Your task to perform on an android device: open app "PUBG MOBILE" (install if not already installed) Image 0: 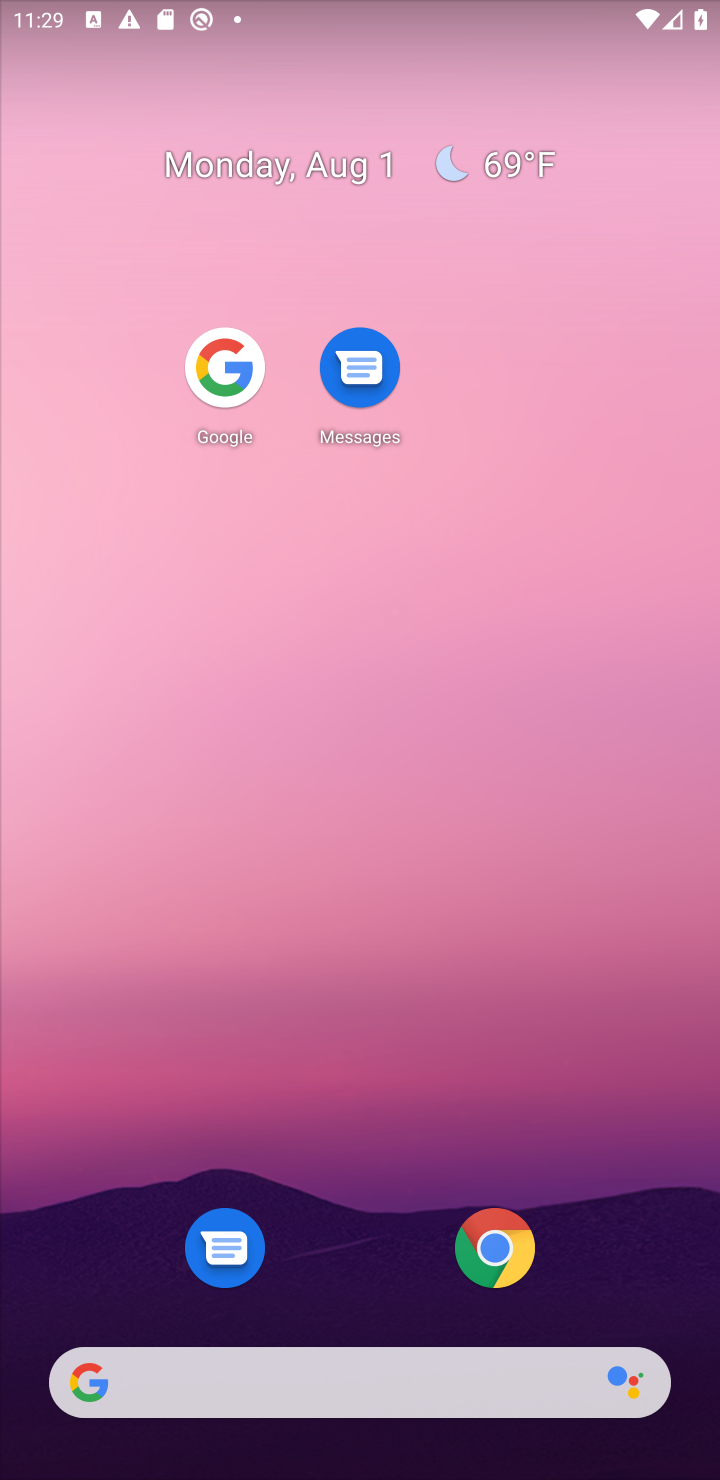
Step 0: drag from (372, 1180) to (482, 157)
Your task to perform on an android device: open app "PUBG MOBILE" (install if not already installed) Image 1: 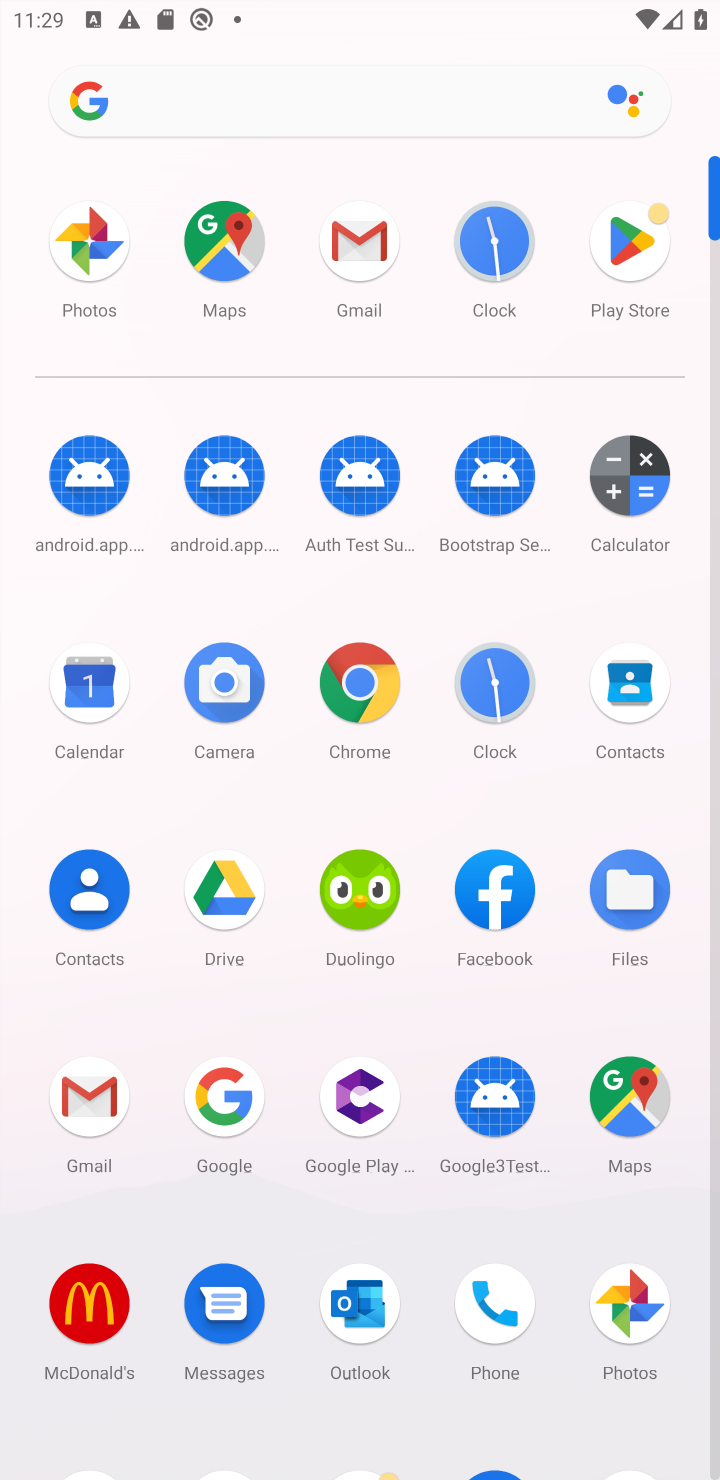
Step 1: drag from (274, 1188) to (351, 401)
Your task to perform on an android device: open app "PUBG MOBILE" (install if not already installed) Image 2: 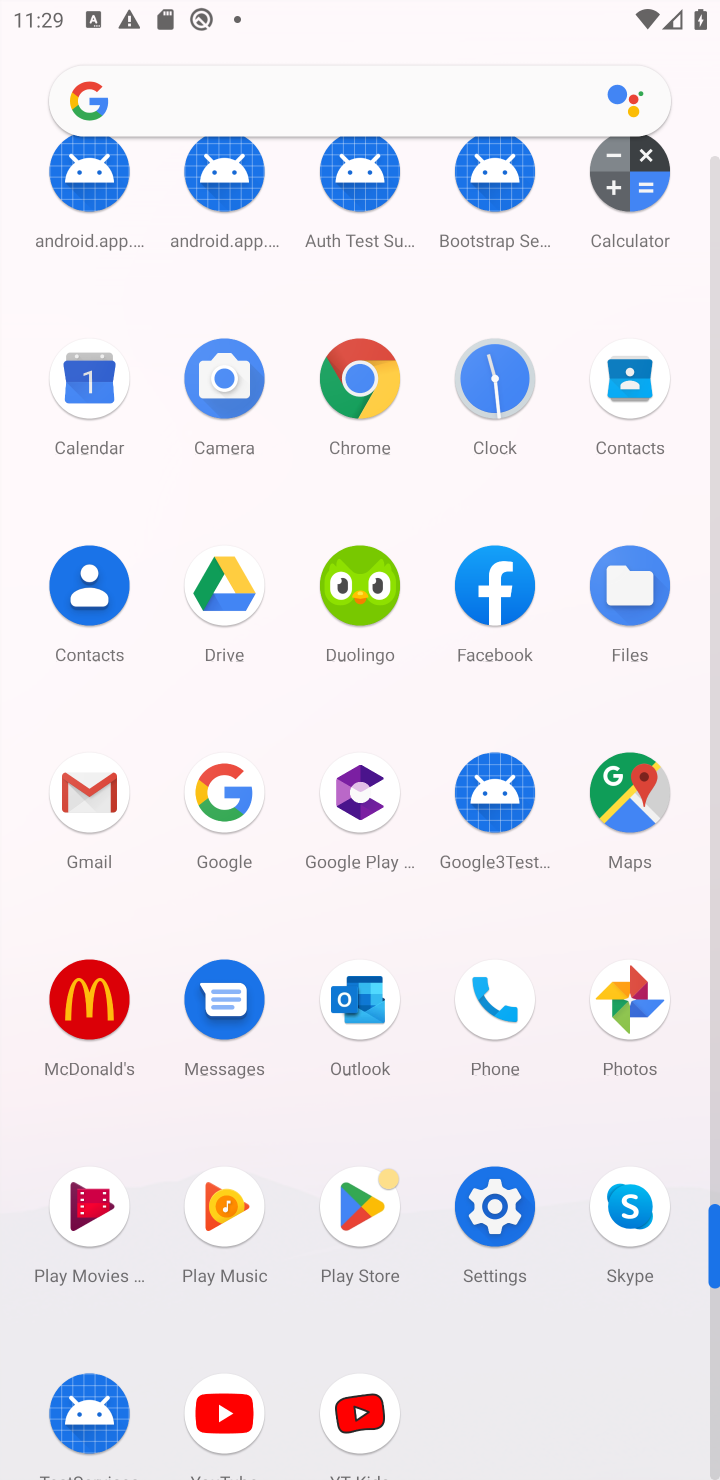
Step 2: click (342, 1207)
Your task to perform on an android device: open app "PUBG MOBILE" (install if not already installed) Image 3: 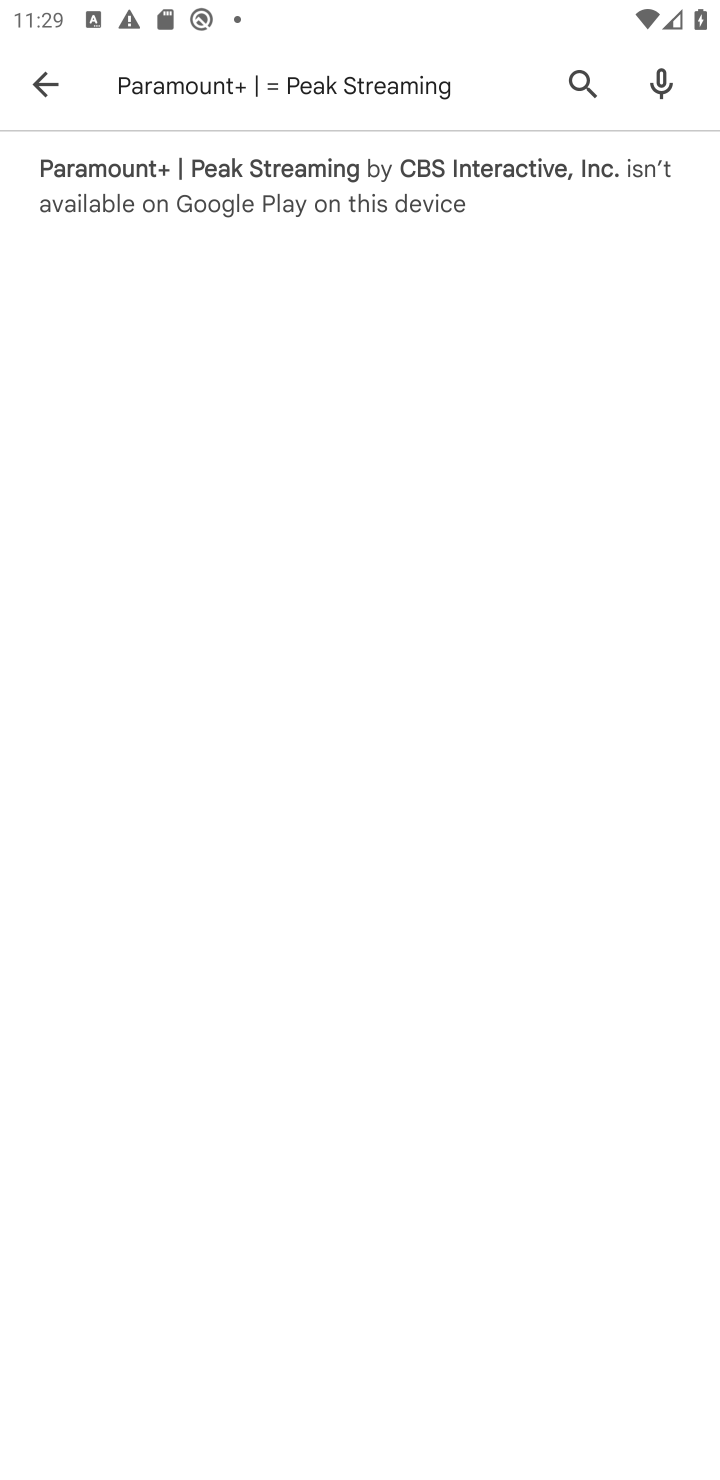
Step 3: click (298, 59)
Your task to perform on an android device: open app "PUBG MOBILE" (install if not already installed) Image 4: 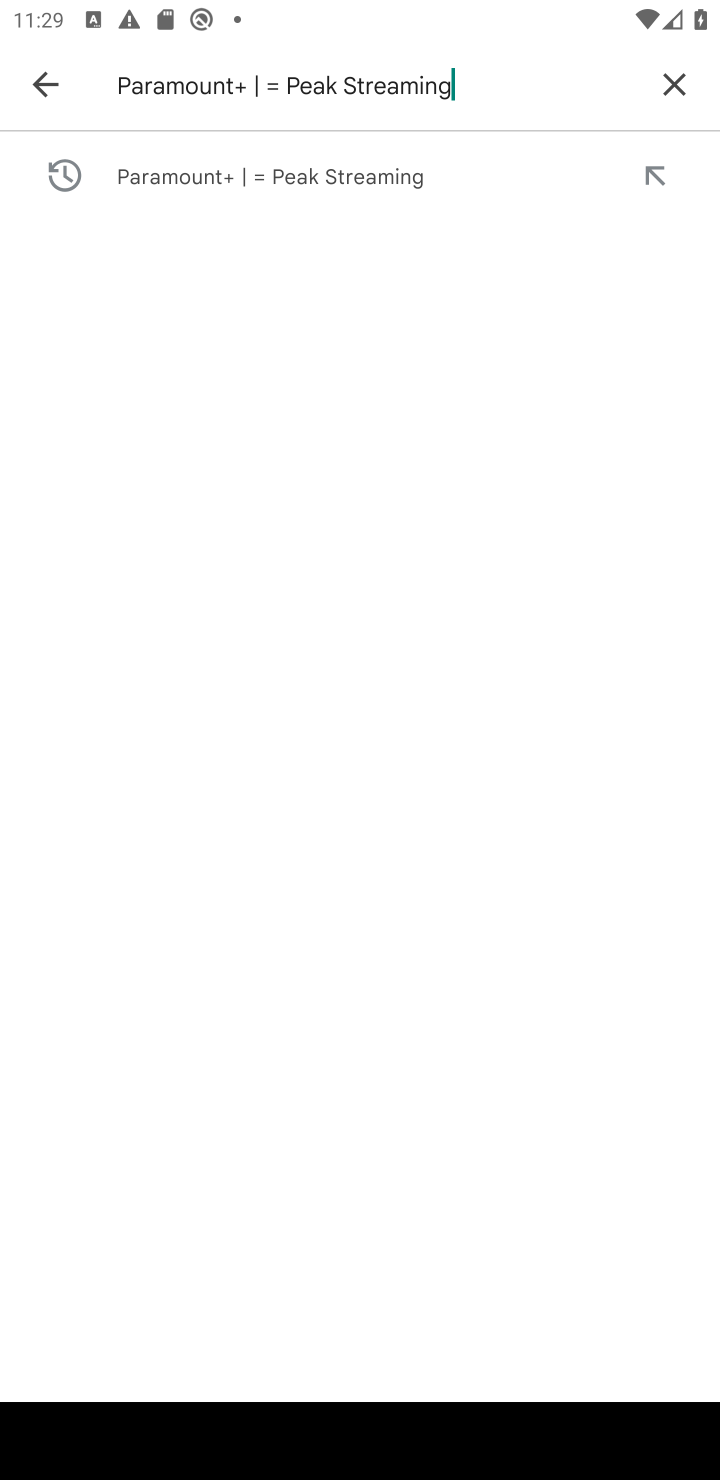
Step 4: click (691, 76)
Your task to perform on an android device: open app "PUBG MOBILE" (install if not already installed) Image 5: 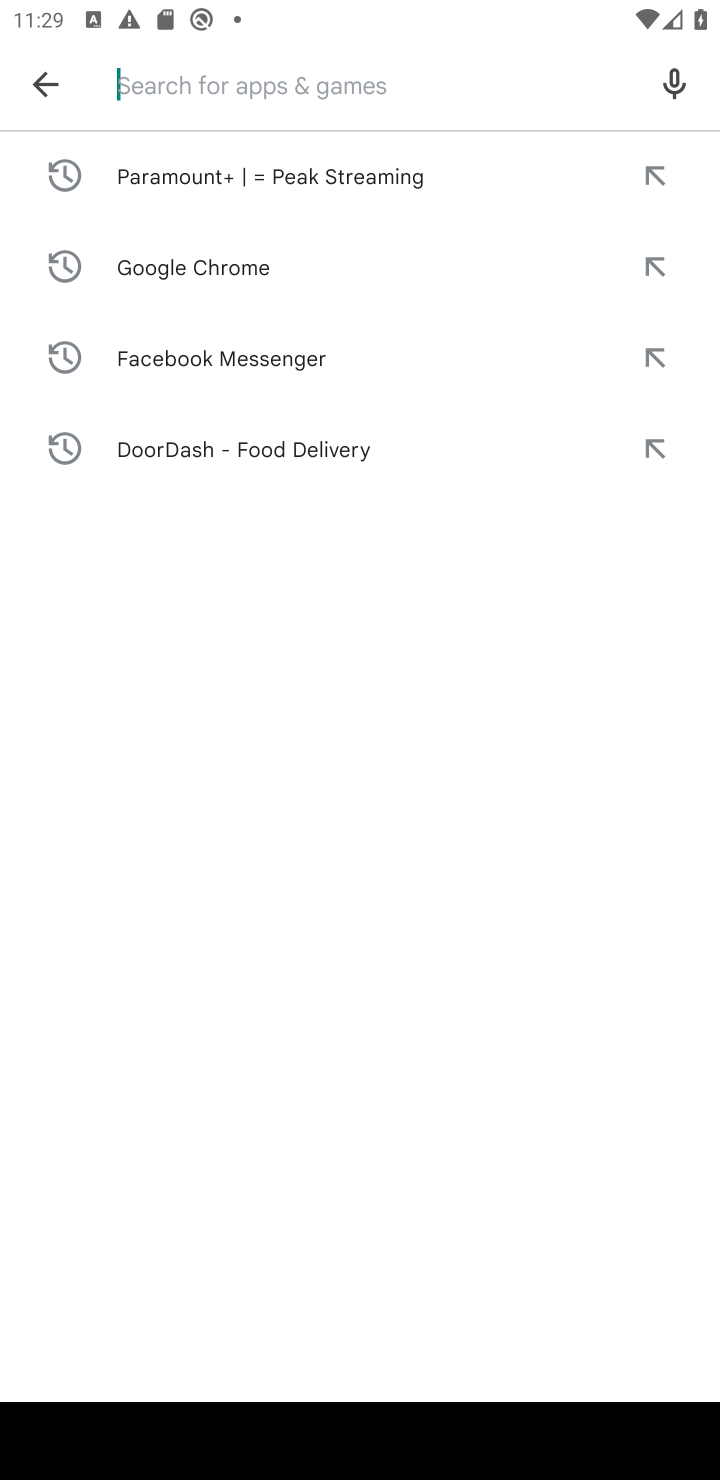
Step 5: type "PUBG MOBILE"
Your task to perform on an android device: open app "PUBG MOBILE" (install if not already installed) Image 6: 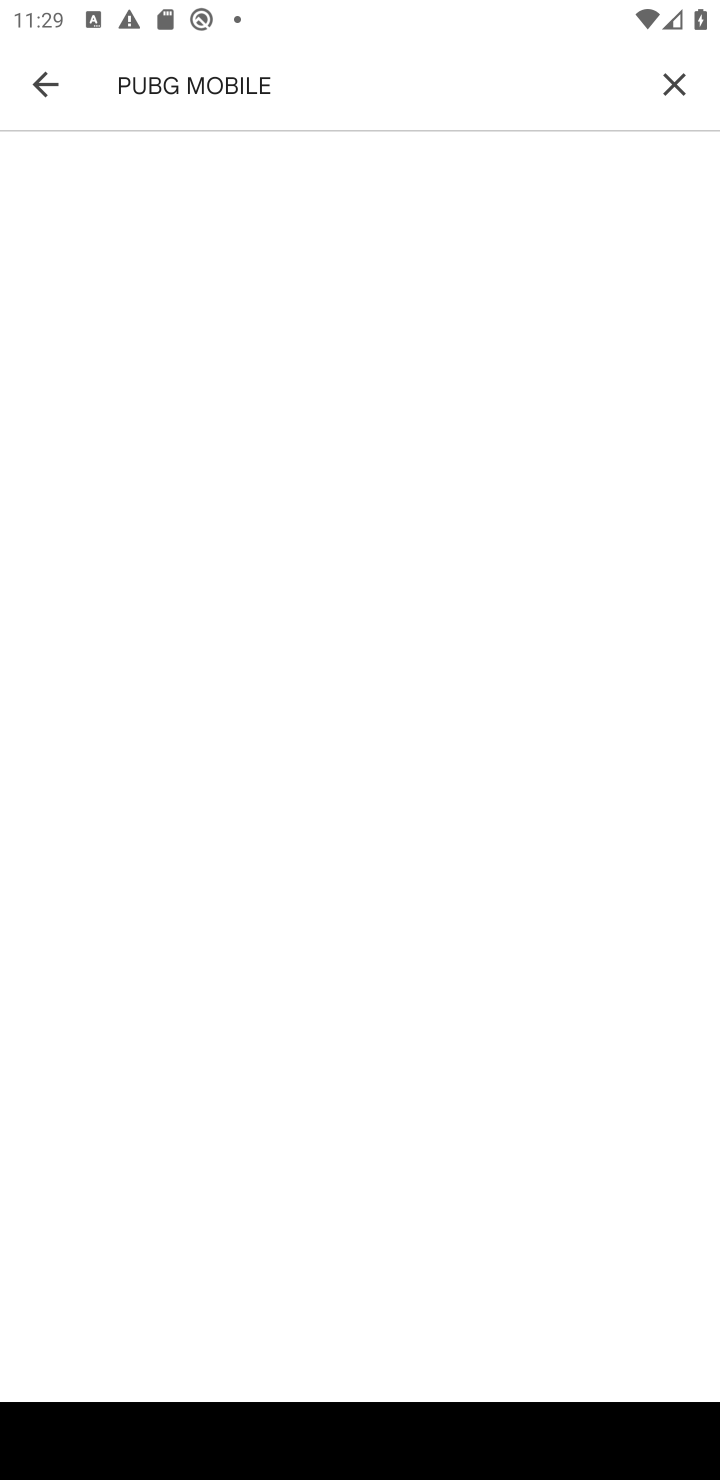
Step 6: press enter
Your task to perform on an android device: open app "PUBG MOBILE" (install if not already installed) Image 7: 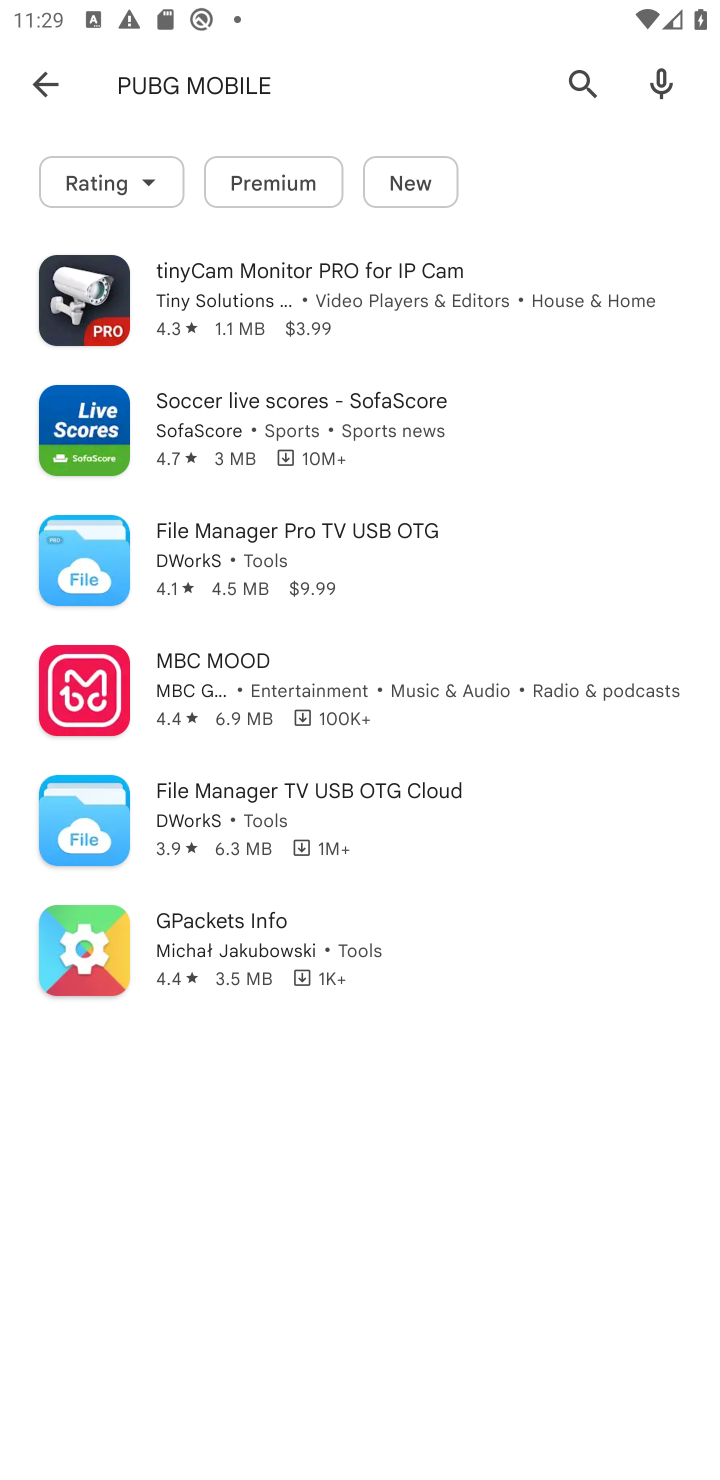
Step 7: task complete